Your task to perform on an android device: Go to location settings Image 0: 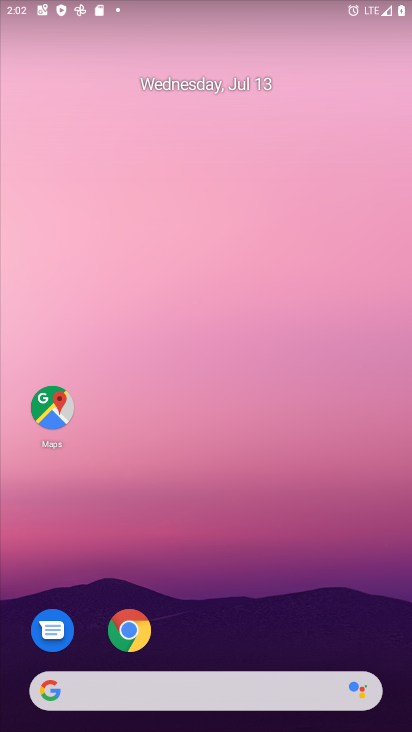
Step 0: drag from (391, 692) to (235, 65)
Your task to perform on an android device: Go to location settings Image 1: 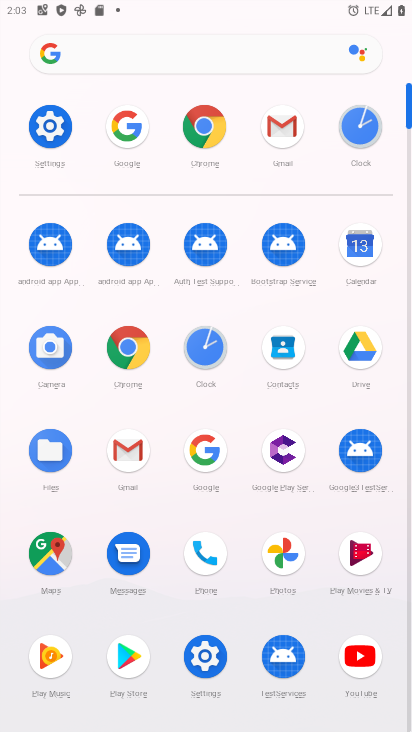
Step 1: click (36, 146)
Your task to perform on an android device: Go to location settings Image 2: 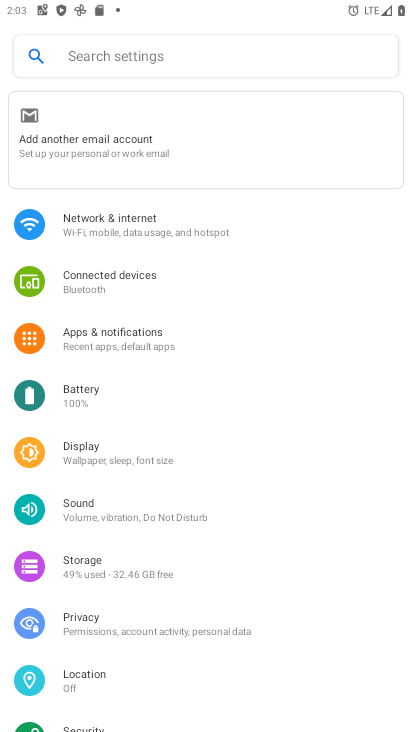
Step 2: click (70, 670)
Your task to perform on an android device: Go to location settings Image 3: 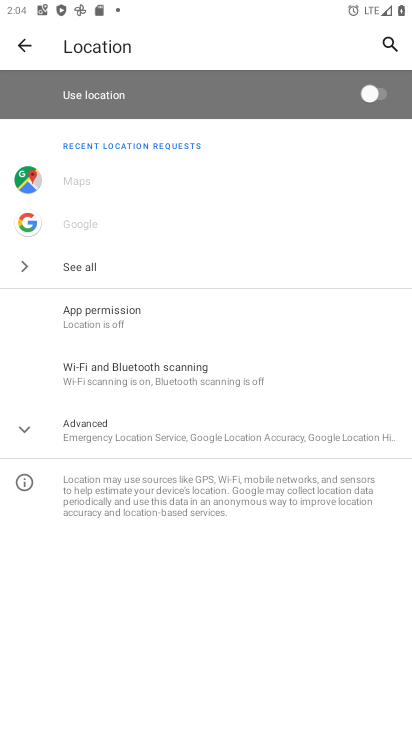
Step 3: task complete